Your task to perform on an android device: Toggle the flashlight Image 0: 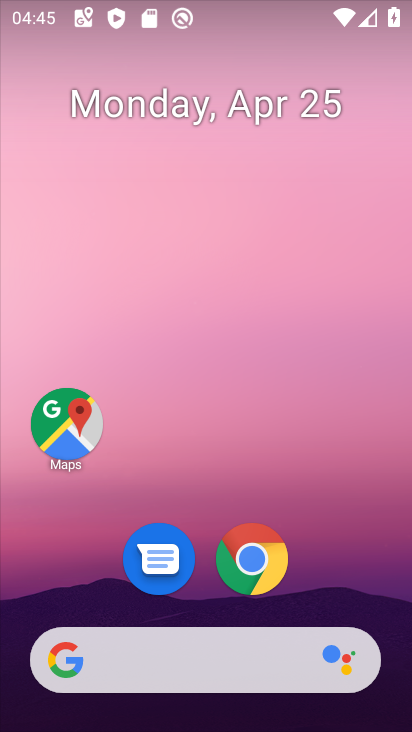
Step 0: drag from (258, 19) to (140, 688)
Your task to perform on an android device: Toggle the flashlight Image 1: 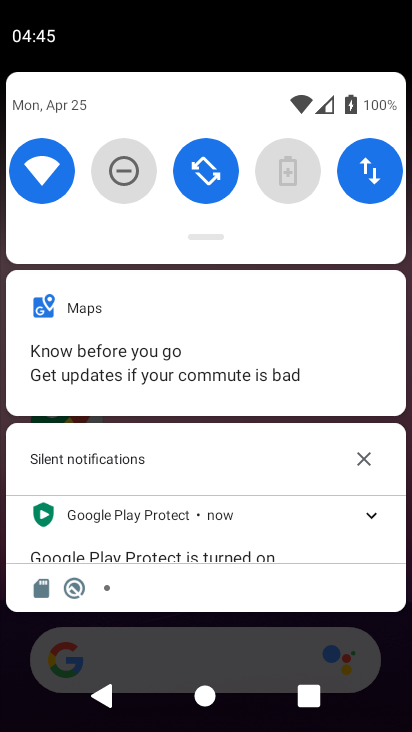
Step 1: drag from (149, 90) to (408, 698)
Your task to perform on an android device: Toggle the flashlight Image 2: 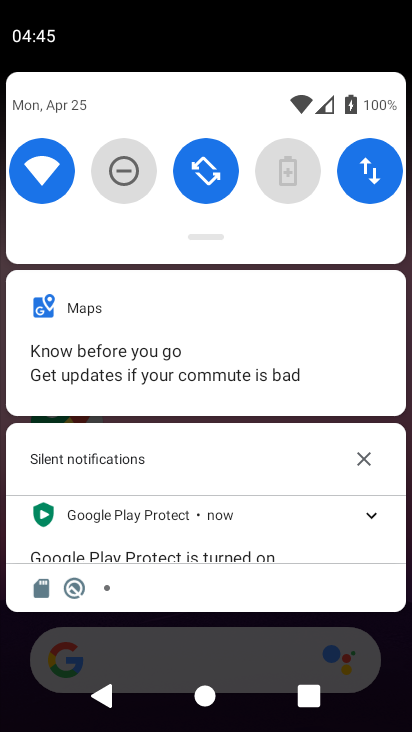
Step 2: drag from (248, 119) to (192, 649)
Your task to perform on an android device: Toggle the flashlight Image 3: 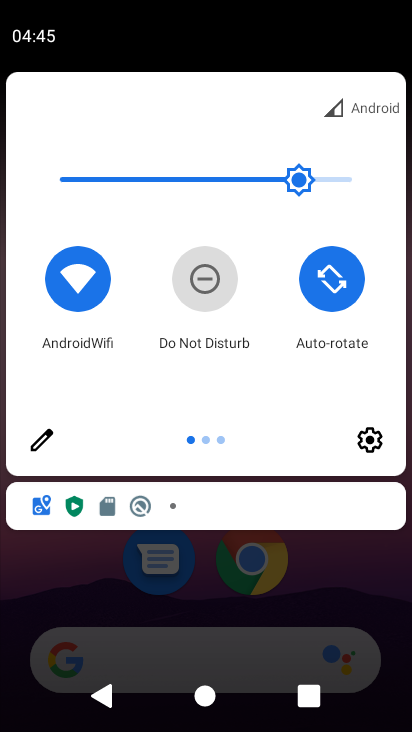
Step 3: click (369, 439)
Your task to perform on an android device: Toggle the flashlight Image 4: 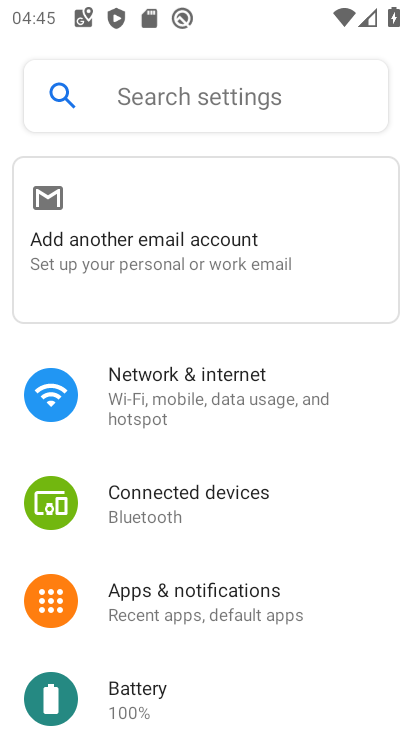
Step 4: task complete